Your task to perform on an android device: Add jbl flip 4 to the cart on newegg, then select checkout. Image 0: 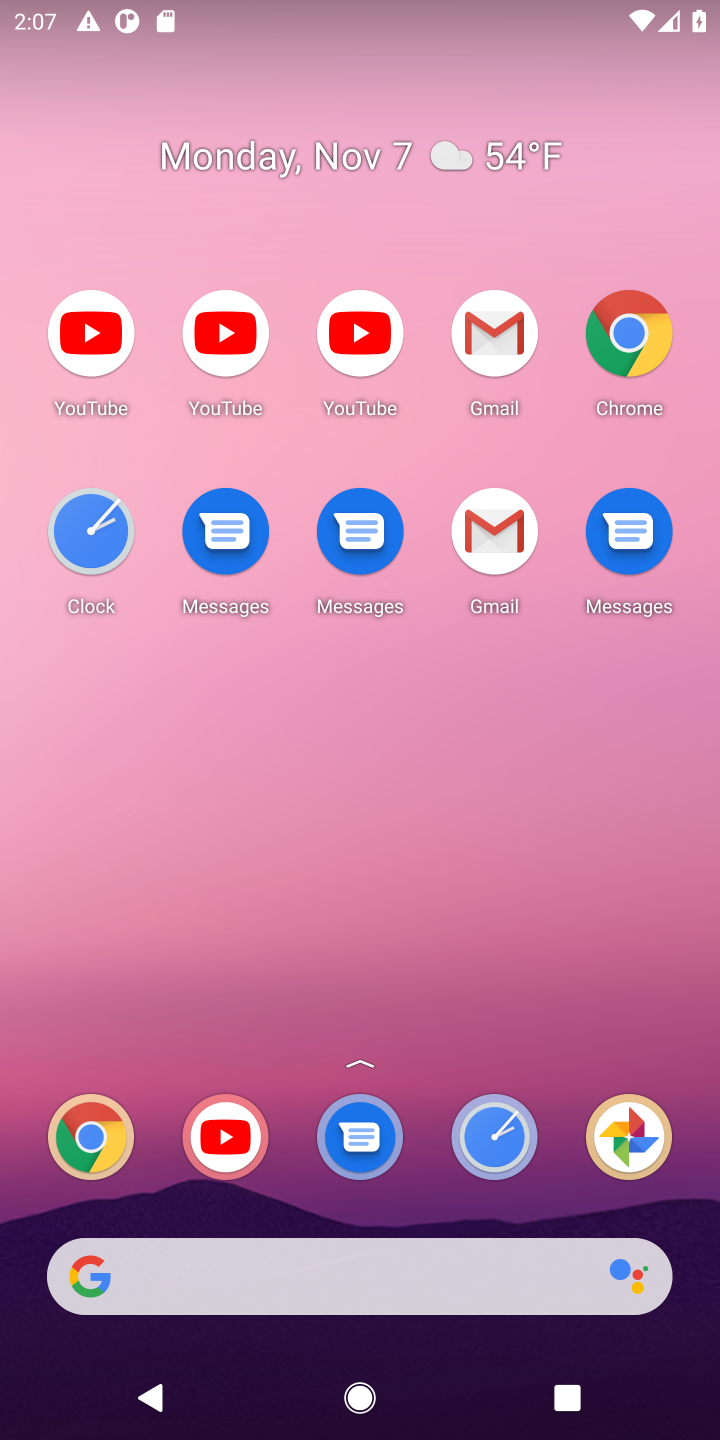
Step 0: drag from (377, 798) to (372, 176)
Your task to perform on an android device: Add jbl flip 4 to the cart on newegg, then select checkout. Image 1: 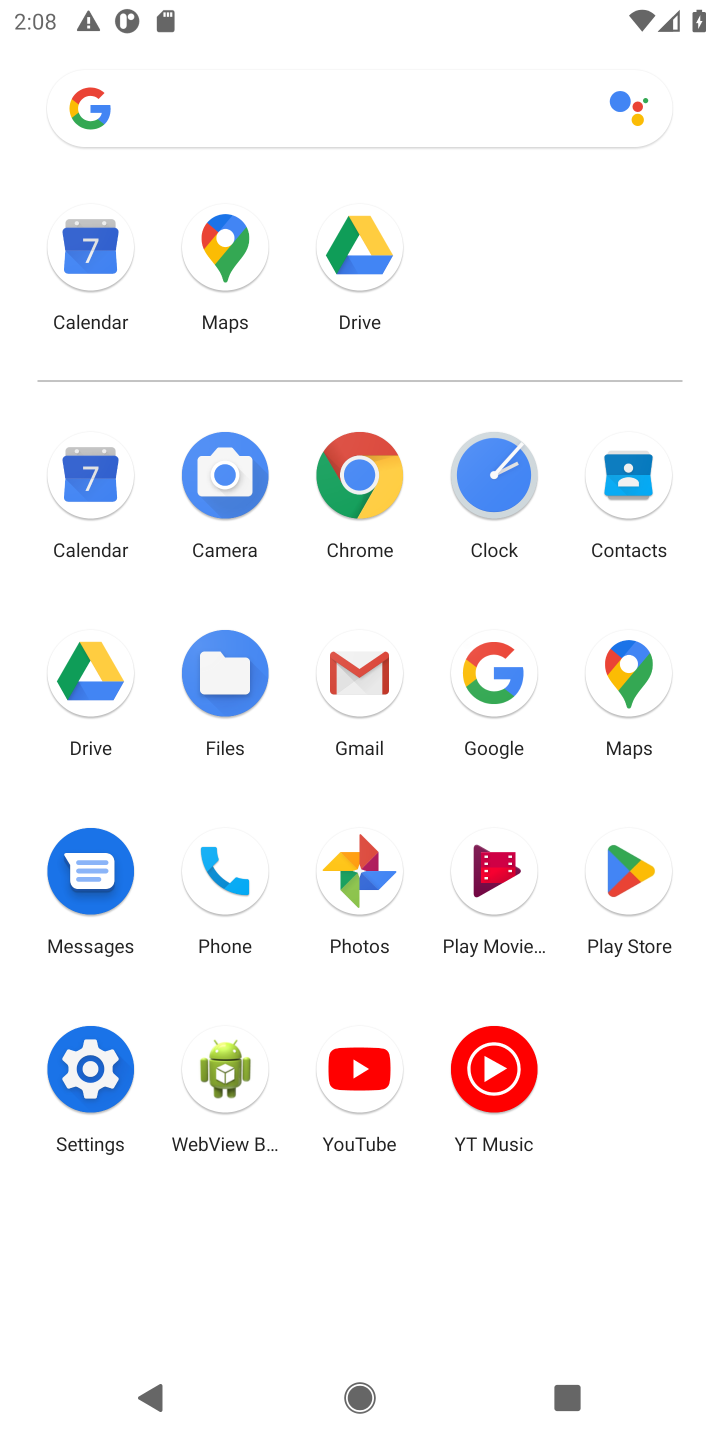
Step 1: click (362, 469)
Your task to perform on an android device: Add jbl flip 4 to the cart on newegg, then select checkout. Image 2: 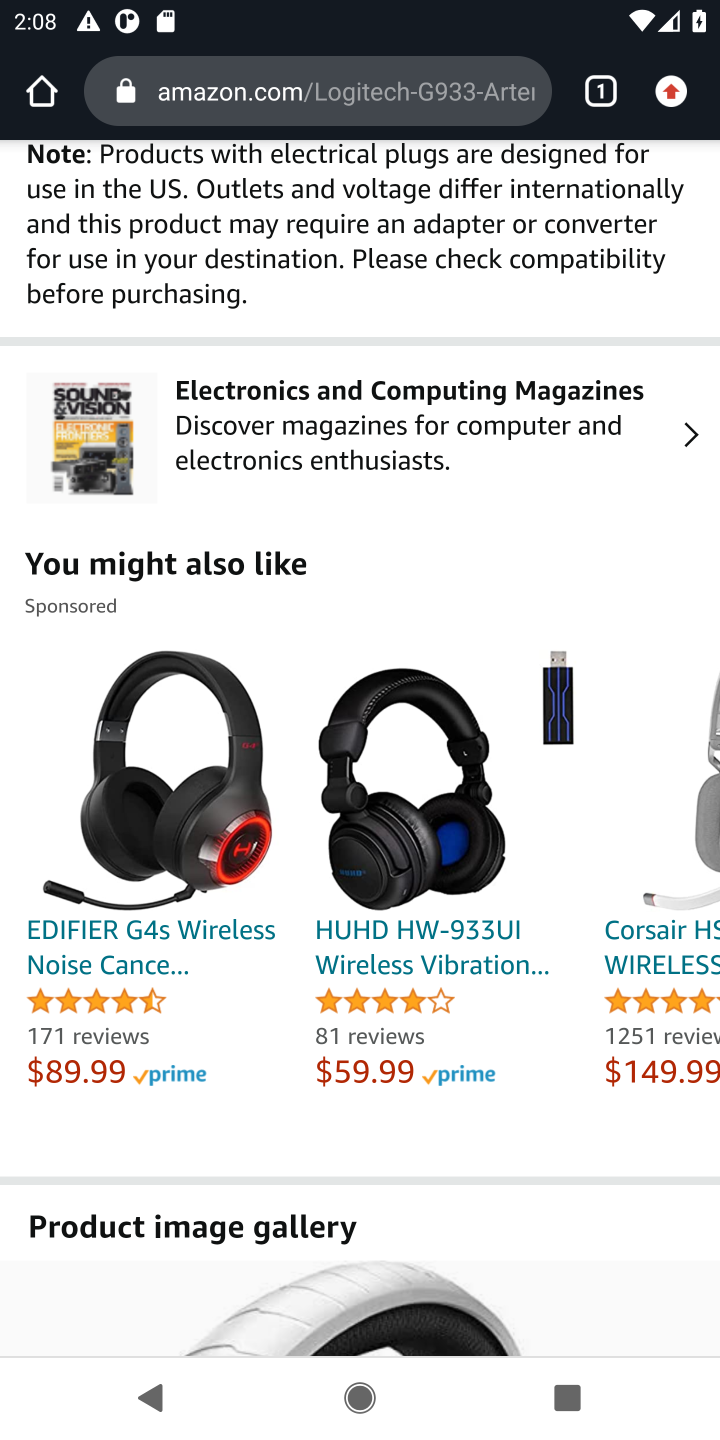
Step 2: click (364, 76)
Your task to perform on an android device: Add jbl flip 4 to the cart on newegg, then select checkout. Image 3: 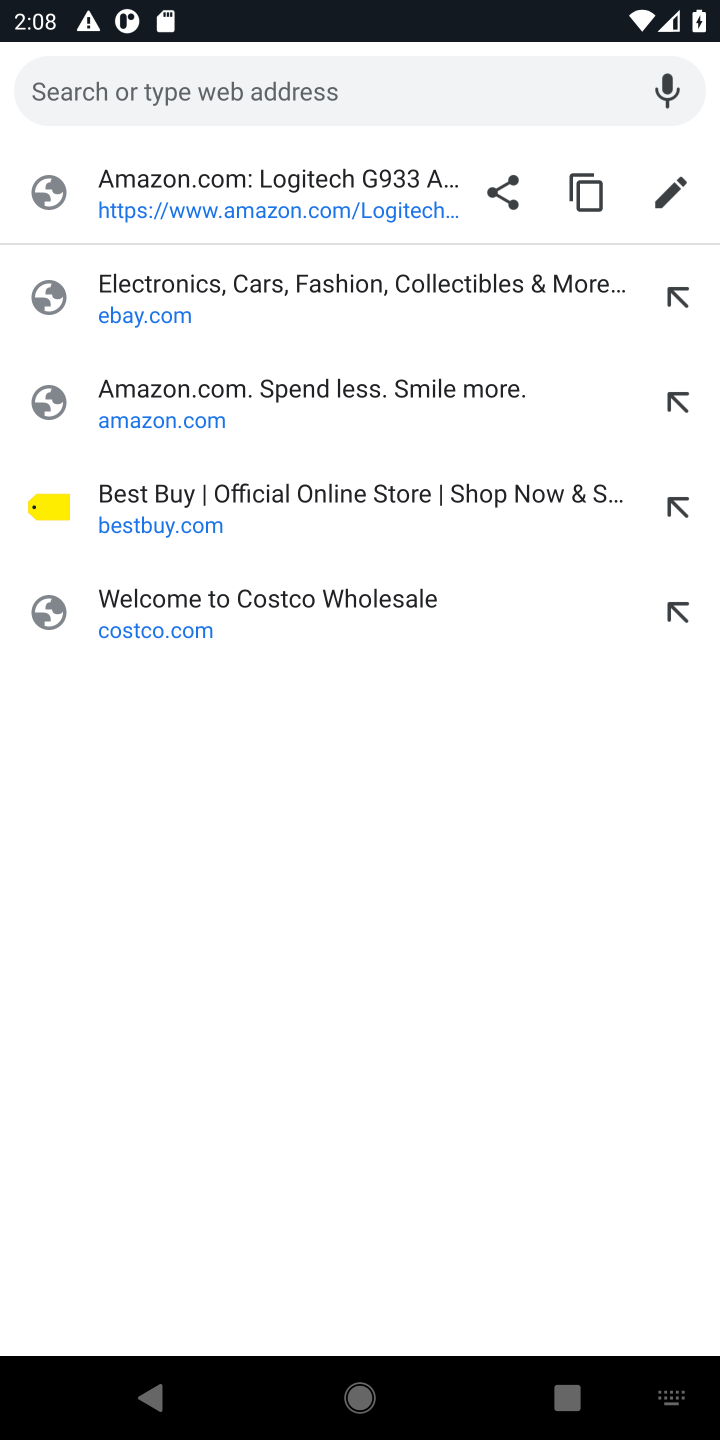
Step 3: type "newegg.com"
Your task to perform on an android device: Add jbl flip 4 to the cart on newegg, then select checkout. Image 4: 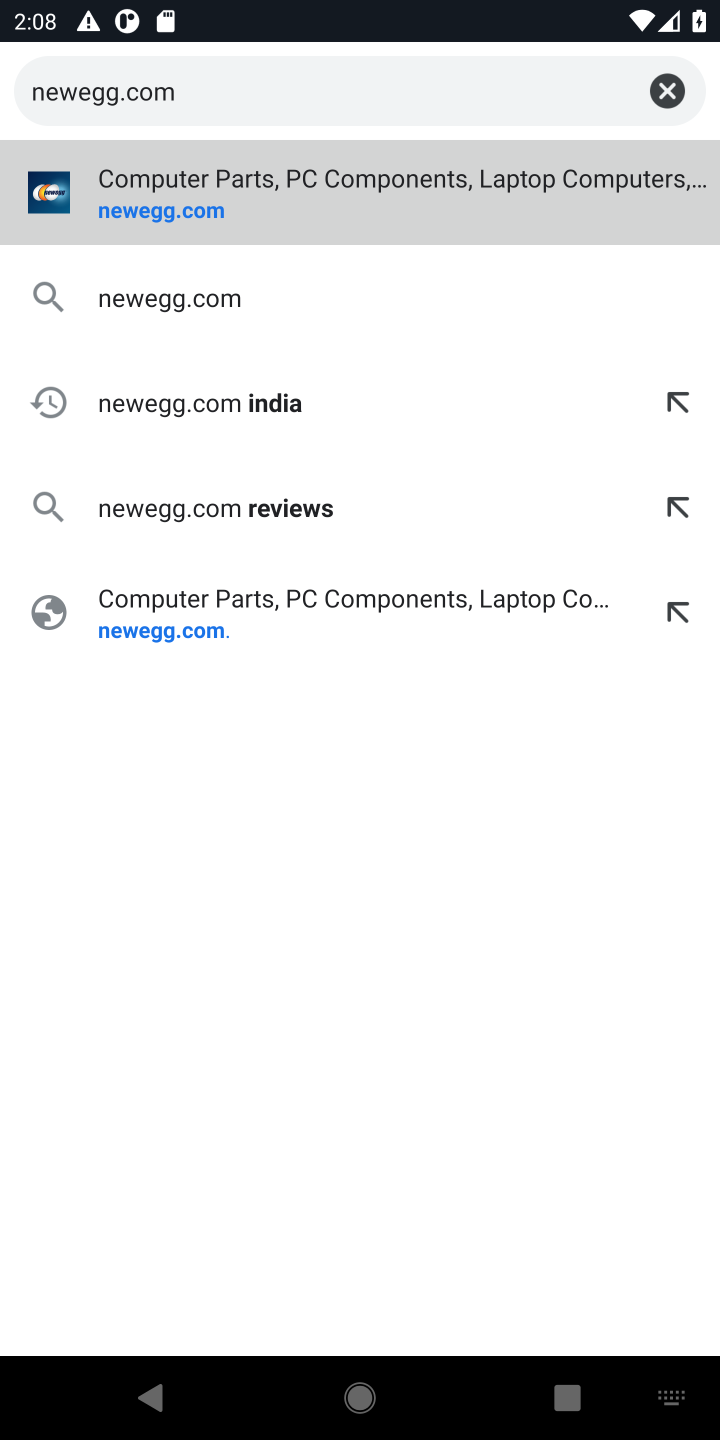
Step 4: press enter
Your task to perform on an android device: Add jbl flip 4 to the cart on newegg, then select checkout. Image 5: 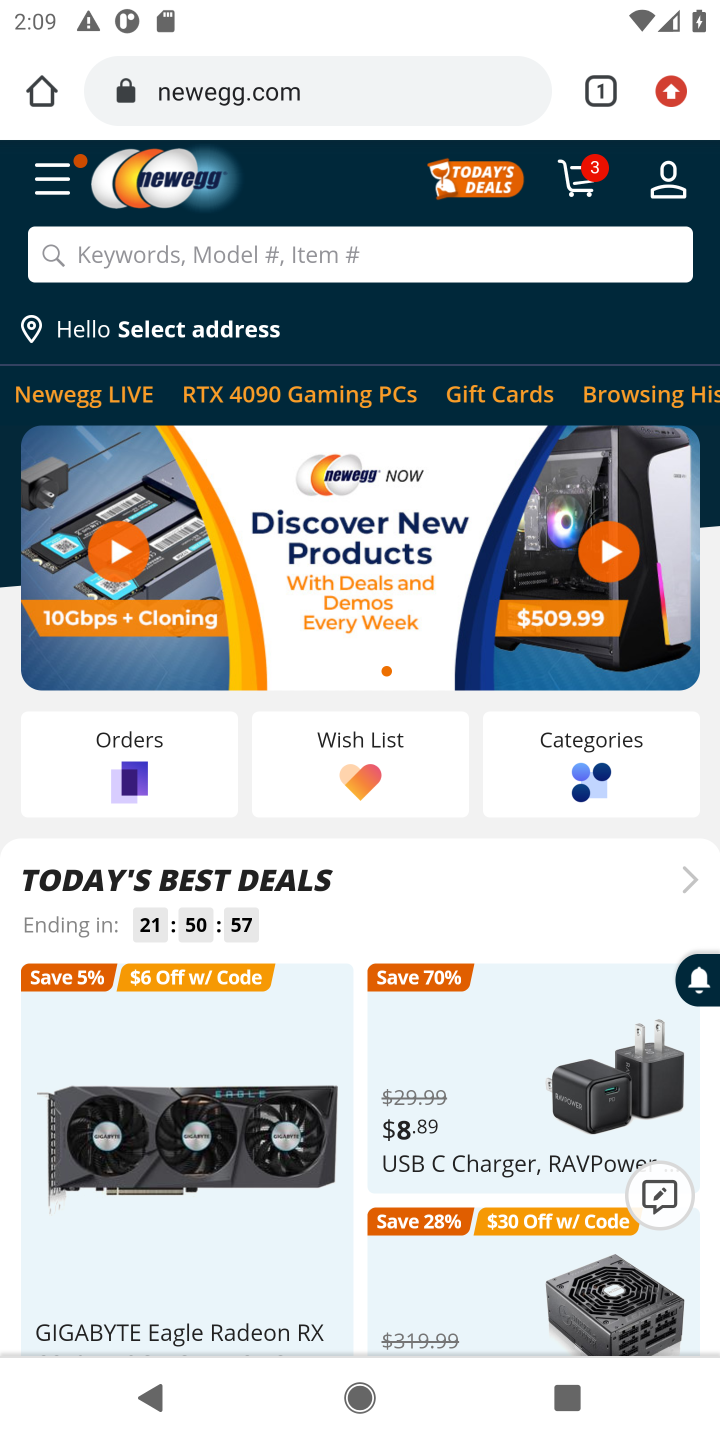
Step 5: click (401, 262)
Your task to perform on an android device: Add jbl flip 4 to the cart on newegg, then select checkout. Image 6: 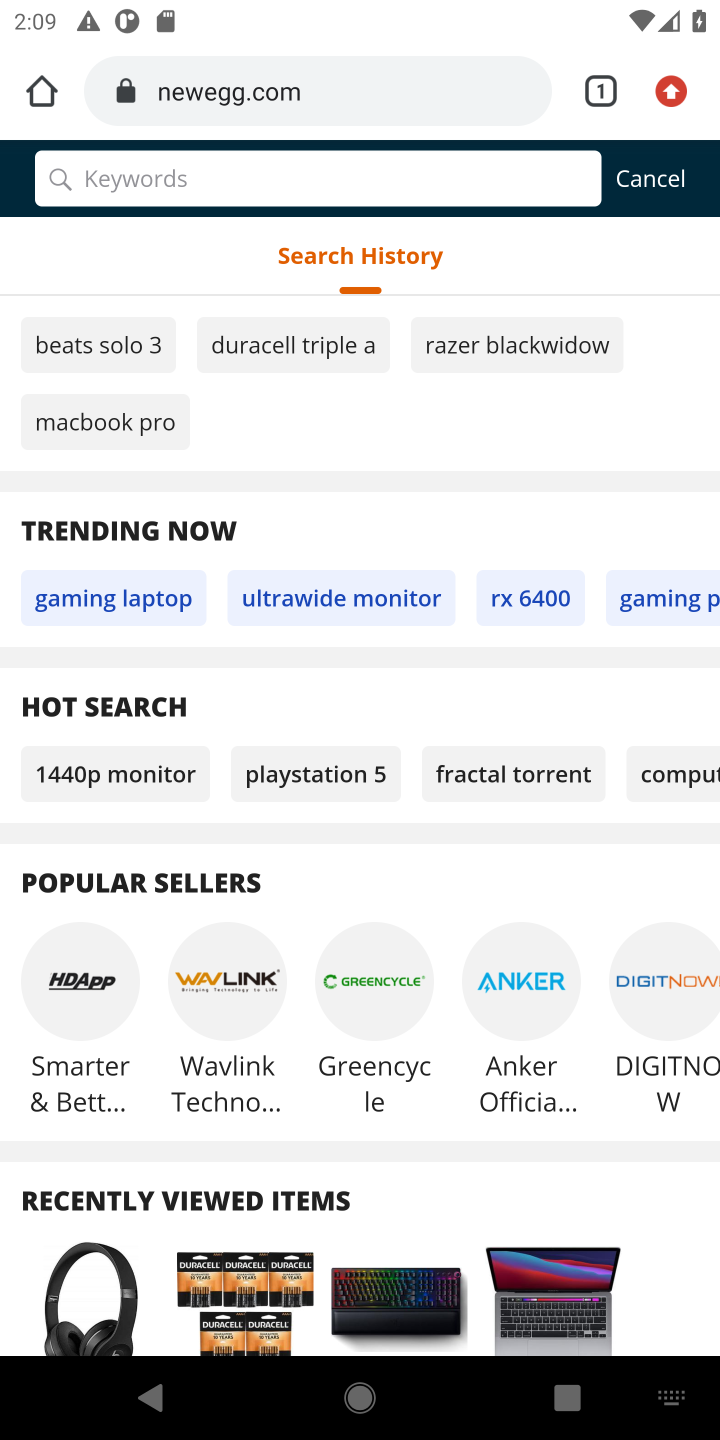
Step 6: type "jbl flip 4"
Your task to perform on an android device: Add jbl flip 4 to the cart on newegg, then select checkout. Image 7: 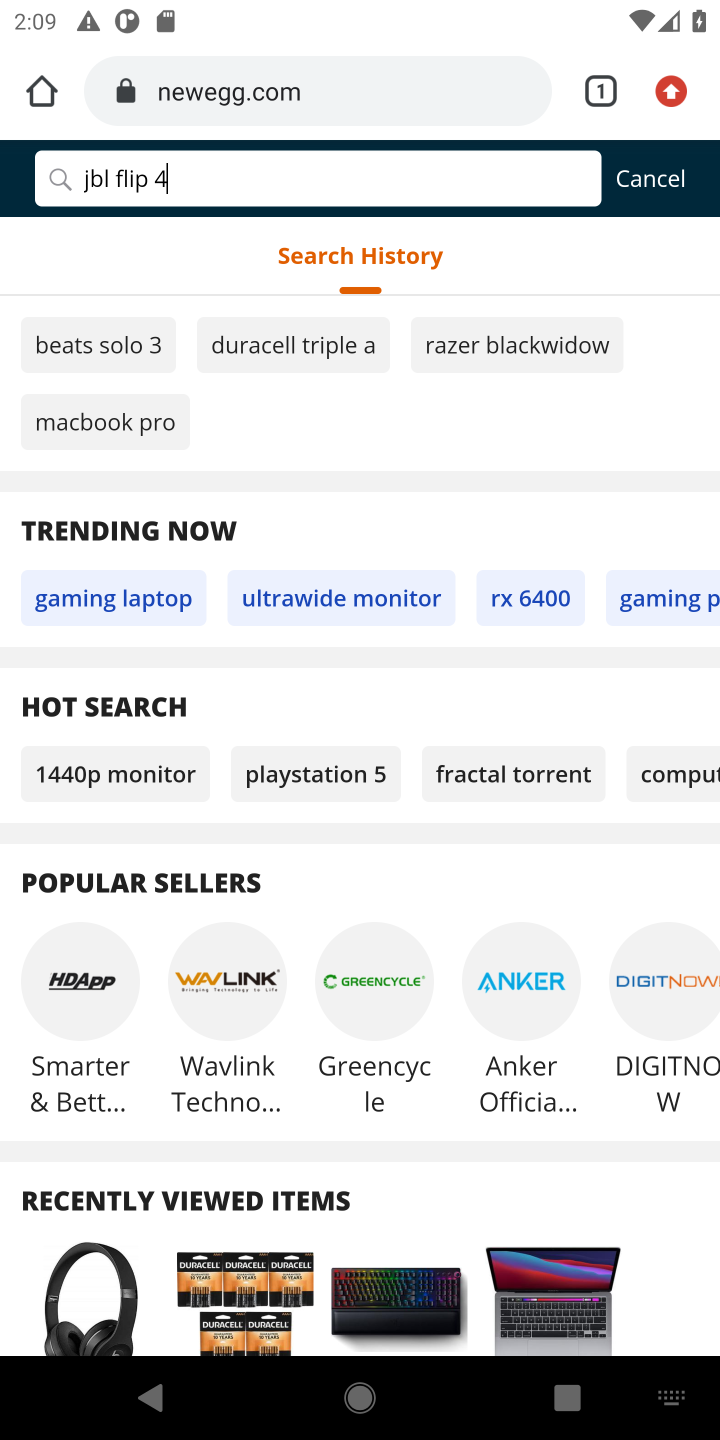
Step 7: press enter
Your task to perform on an android device: Add jbl flip 4 to the cart on newegg, then select checkout. Image 8: 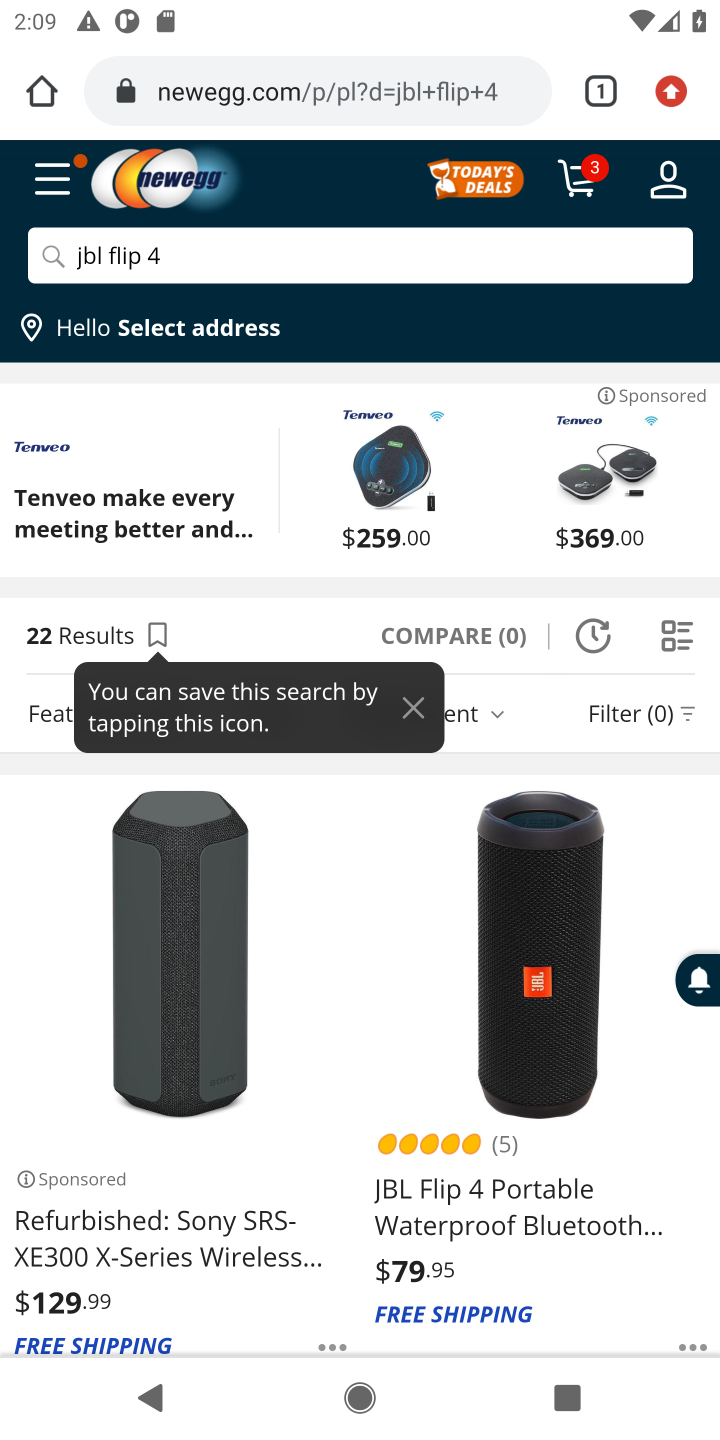
Step 8: drag from (540, 1264) to (519, 645)
Your task to perform on an android device: Add jbl flip 4 to the cart on newegg, then select checkout. Image 9: 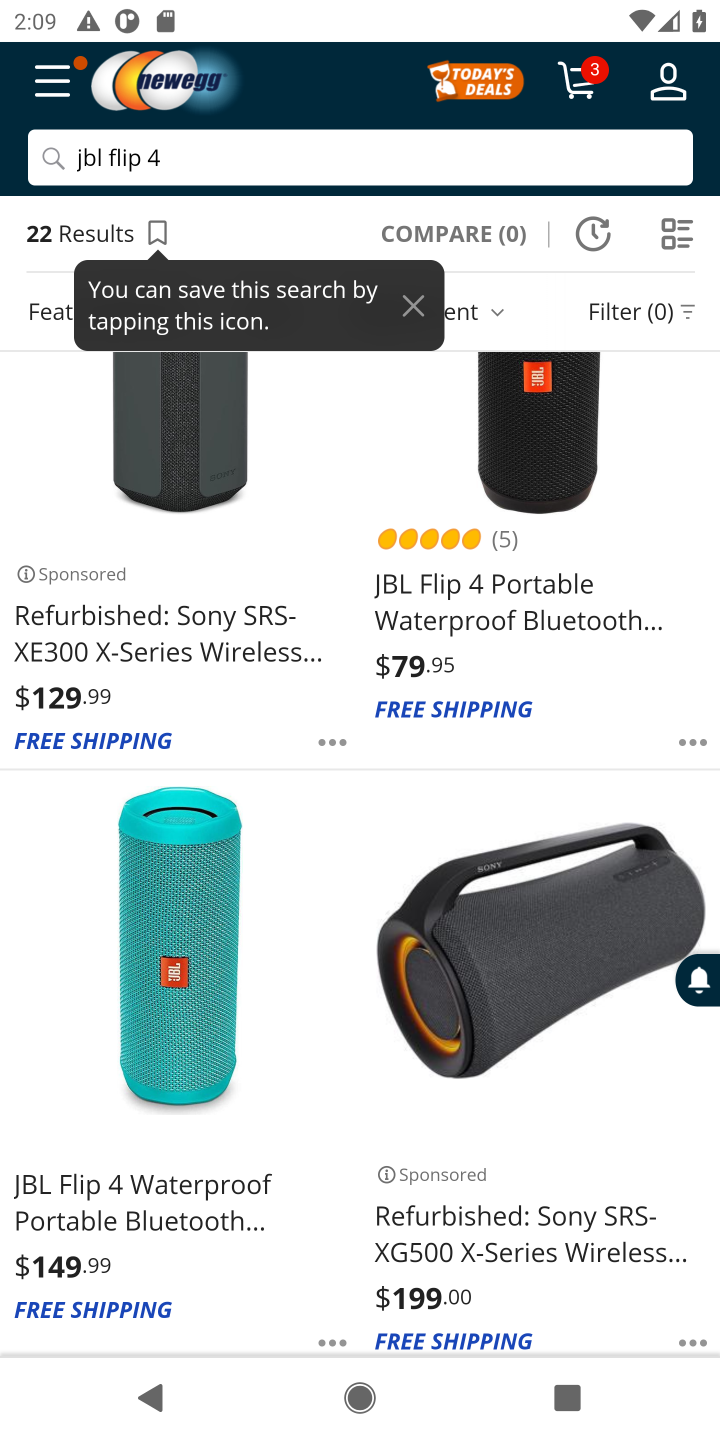
Step 9: click (515, 604)
Your task to perform on an android device: Add jbl flip 4 to the cart on newegg, then select checkout. Image 10: 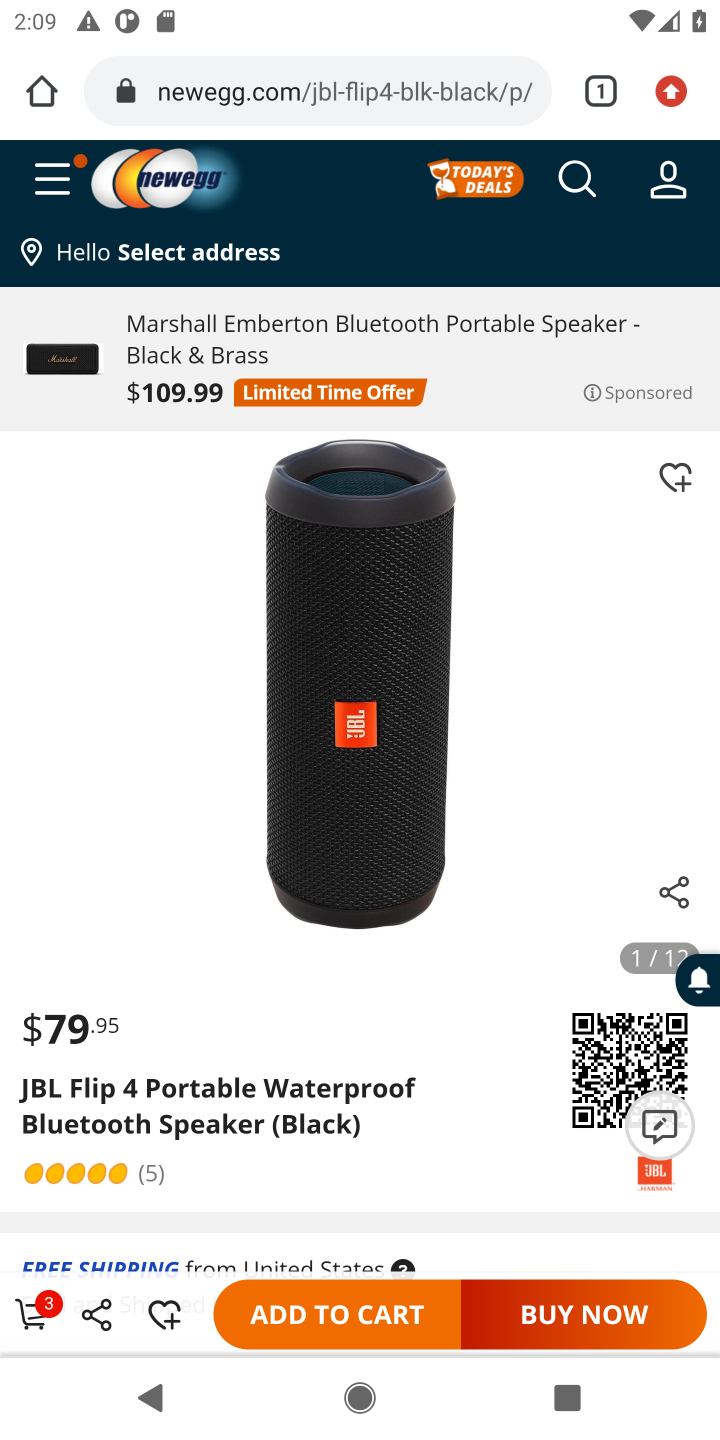
Step 10: click (317, 1314)
Your task to perform on an android device: Add jbl flip 4 to the cart on newegg, then select checkout. Image 11: 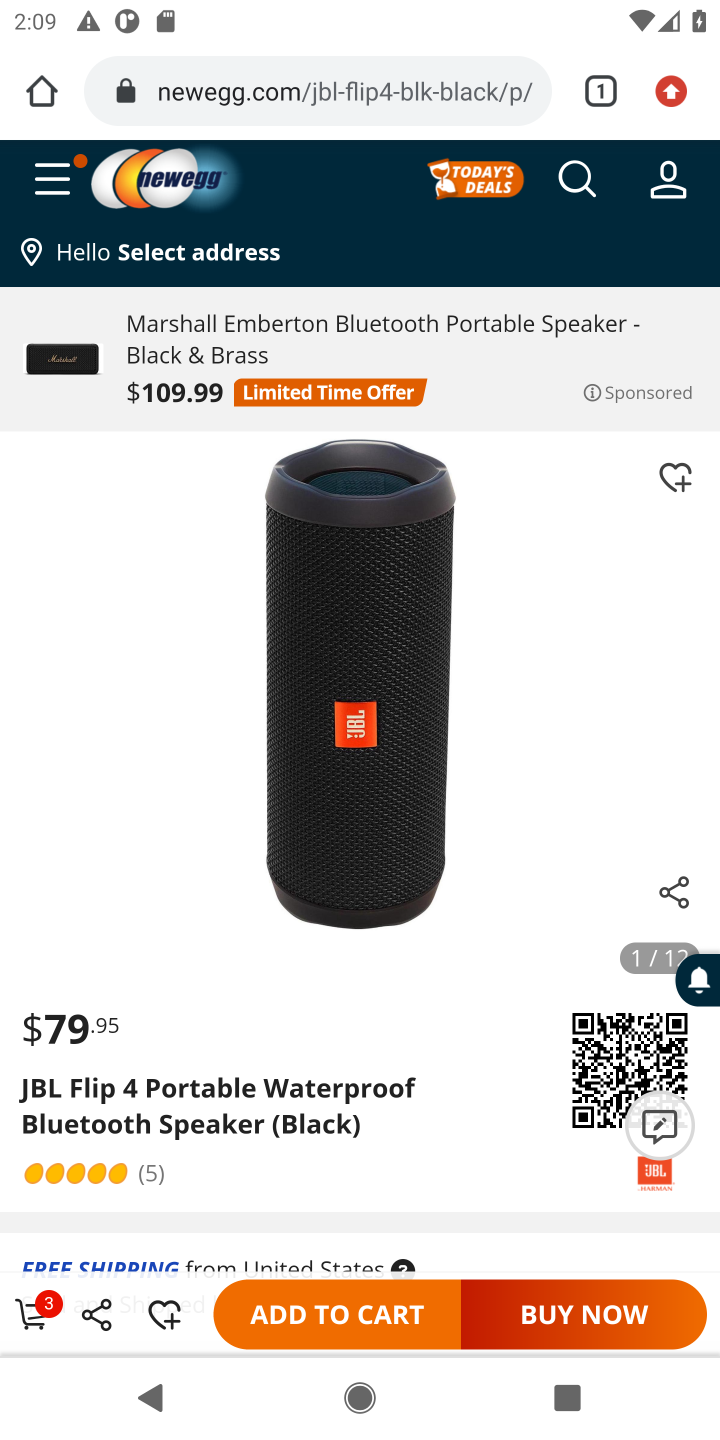
Step 11: click (368, 1321)
Your task to perform on an android device: Add jbl flip 4 to the cart on newegg, then select checkout. Image 12: 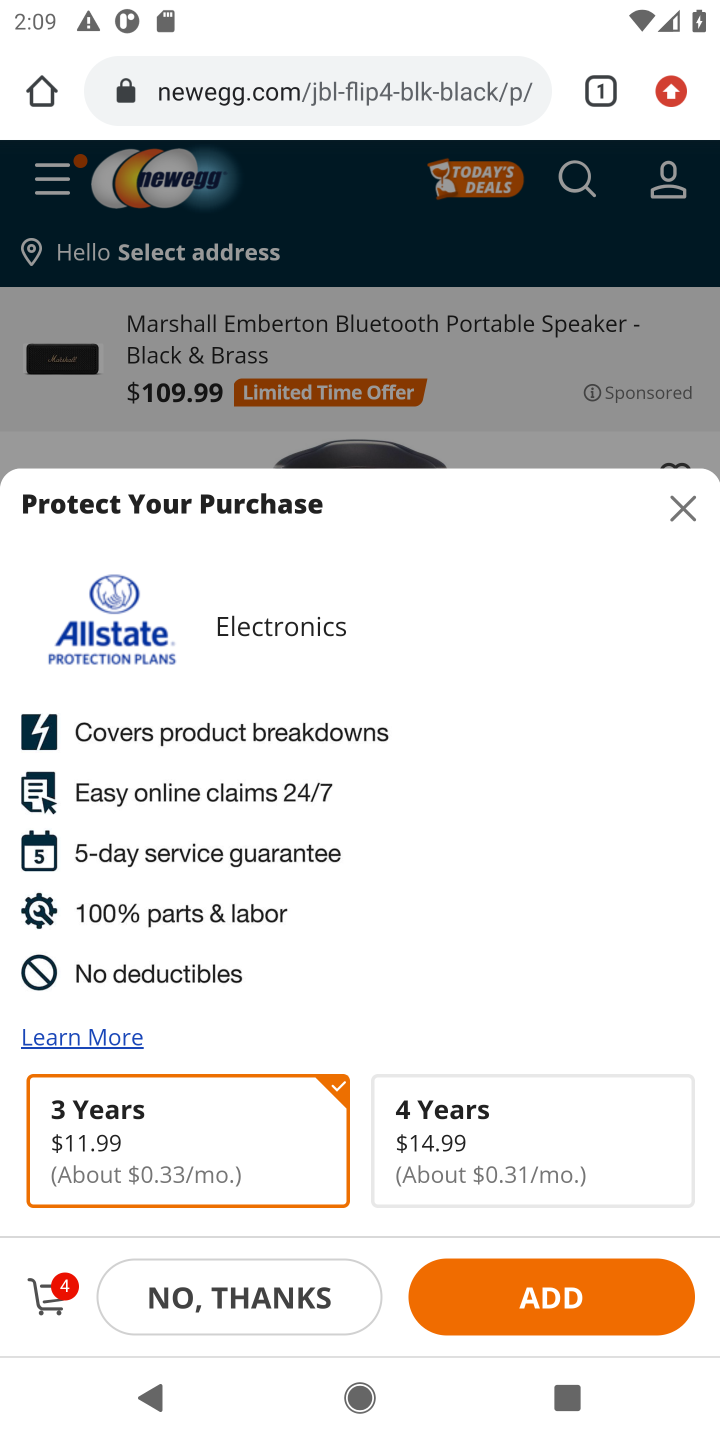
Step 12: click (56, 1296)
Your task to perform on an android device: Add jbl flip 4 to the cart on newegg, then select checkout. Image 13: 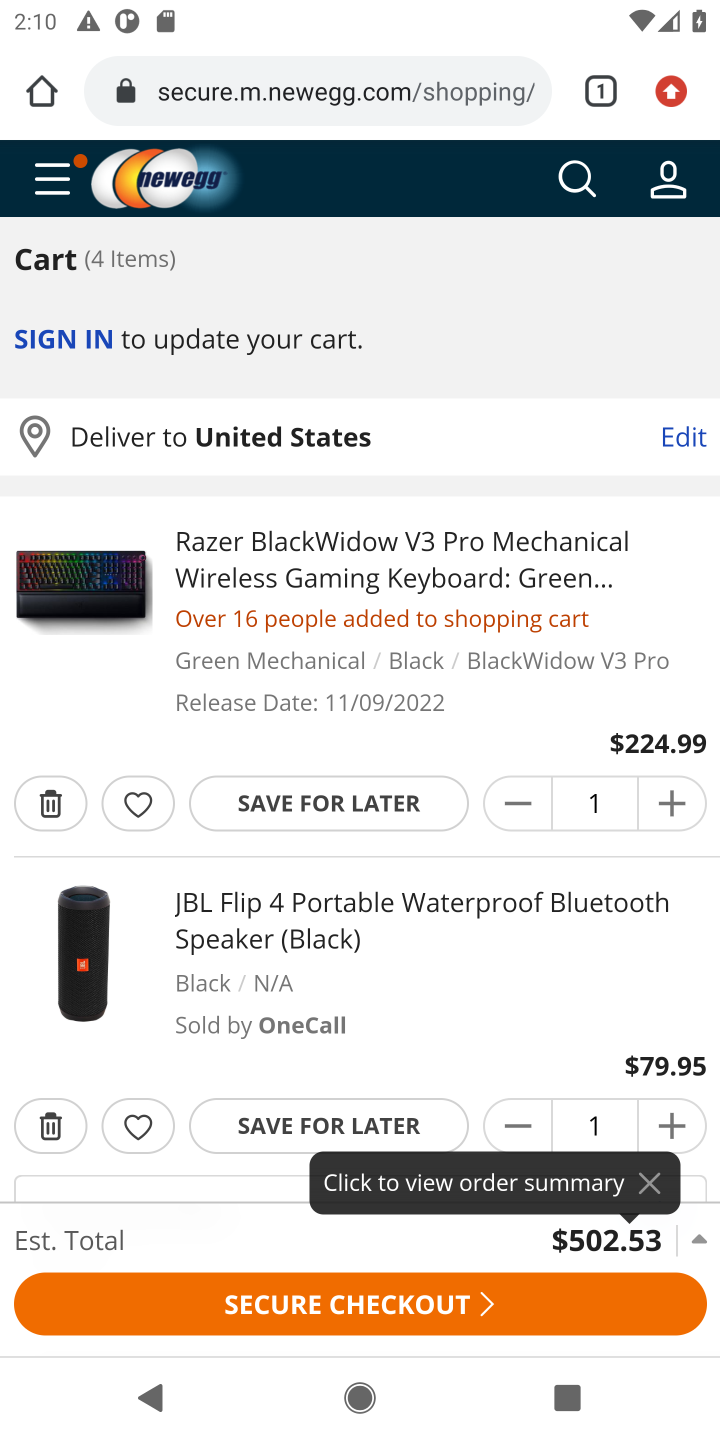
Step 13: click (230, 1311)
Your task to perform on an android device: Add jbl flip 4 to the cart on newegg, then select checkout. Image 14: 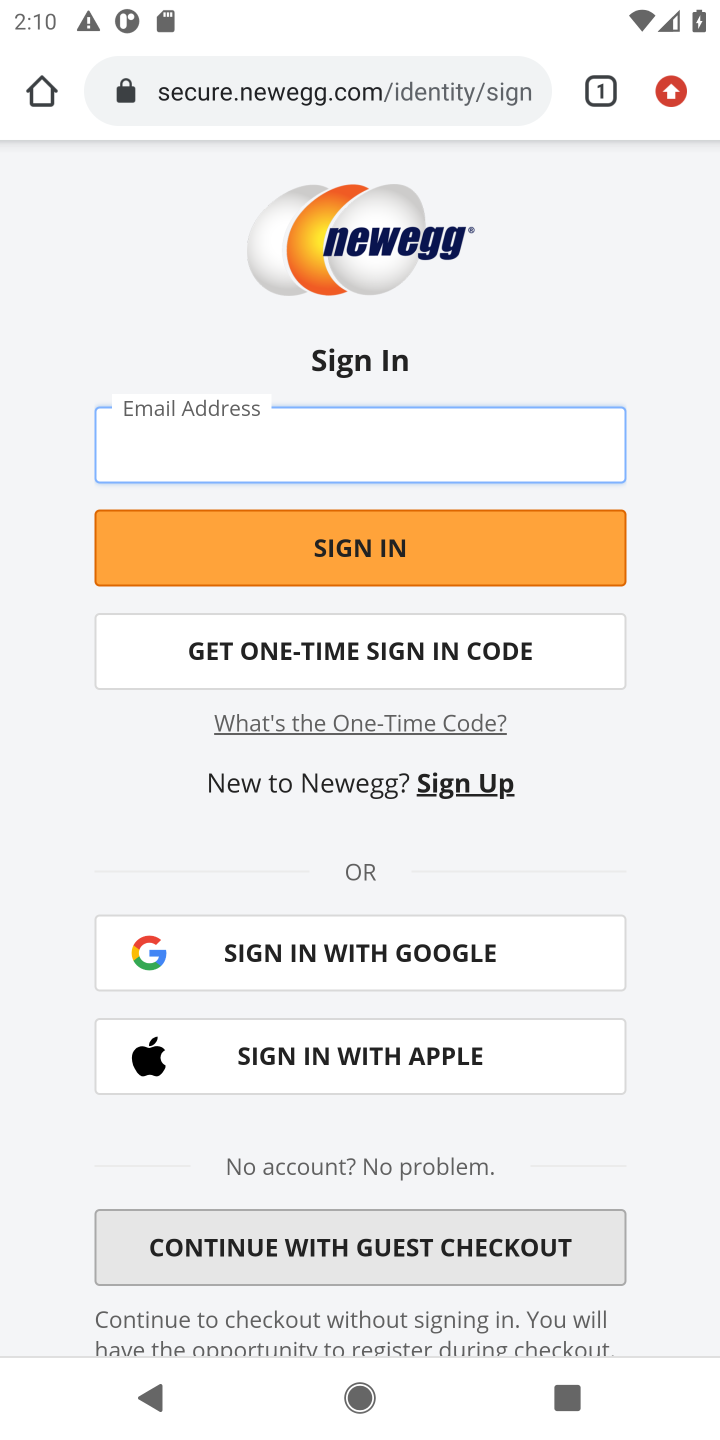
Step 14: task complete